Your task to perform on an android device: turn vacation reply on in the gmail app Image 0: 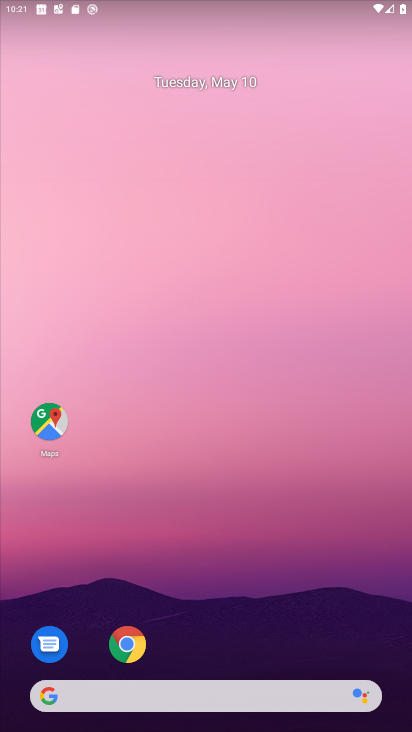
Step 0: drag from (242, 576) to (211, 73)
Your task to perform on an android device: turn vacation reply on in the gmail app Image 1: 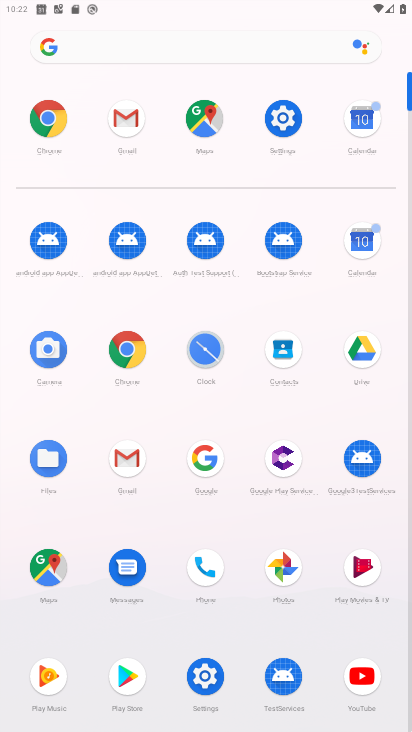
Step 1: click (130, 460)
Your task to perform on an android device: turn vacation reply on in the gmail app Image 2: 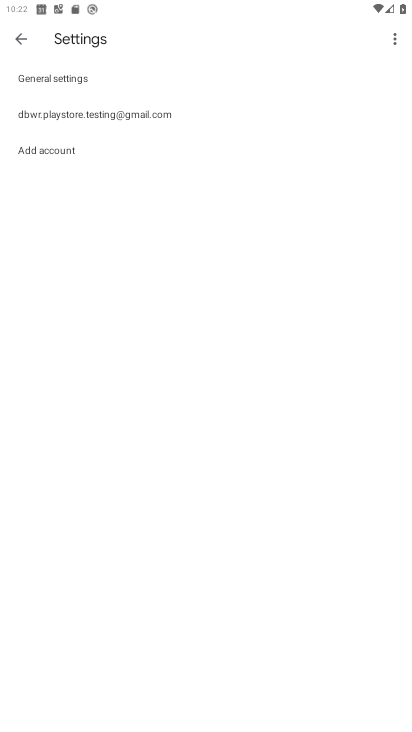
Step 2: click (106, 115)
Your task to perform on an android device: turn vacation reply on in the gmail app Image 3: 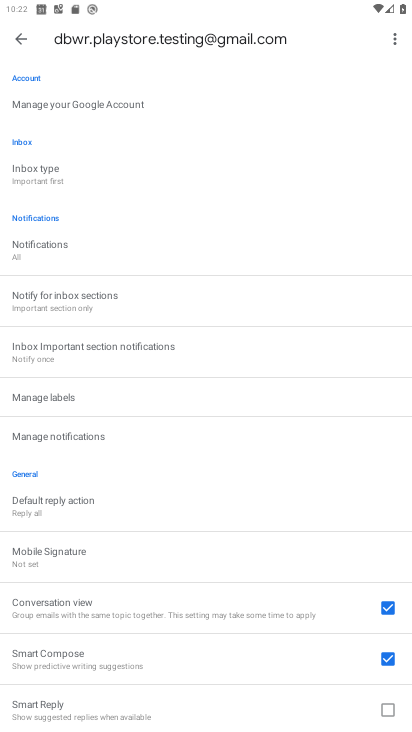
Step 3: drag from (177, 471) to (192, 301)
Your task to perform on an android device: turn vacation reply on in the gmail app Image 4: 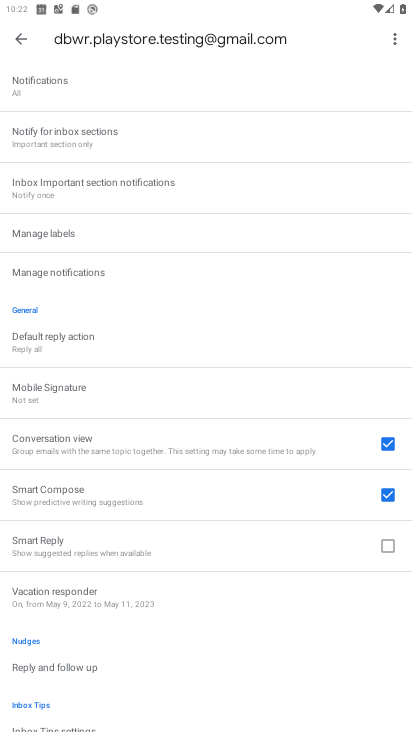
Step 4: click (180, 608)
Your task to perform on an android device: turn vacation reply on in the gmail app Image 5: 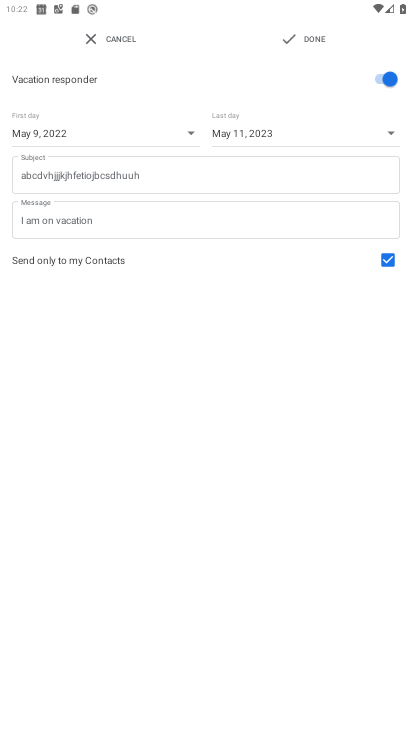
Step 5: task complete